Your task to perform on an android device: Open Google Chrome Image 0: 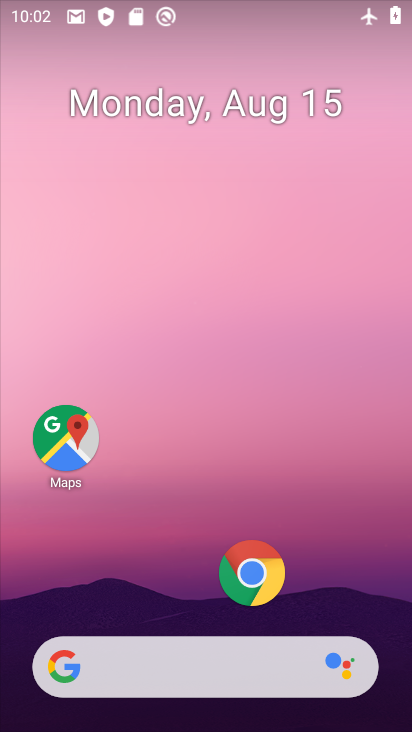
Step 0: drag from (161, 583) to (142, 92)
Your task to perform on an android device: Open Google Chrome Image 1: 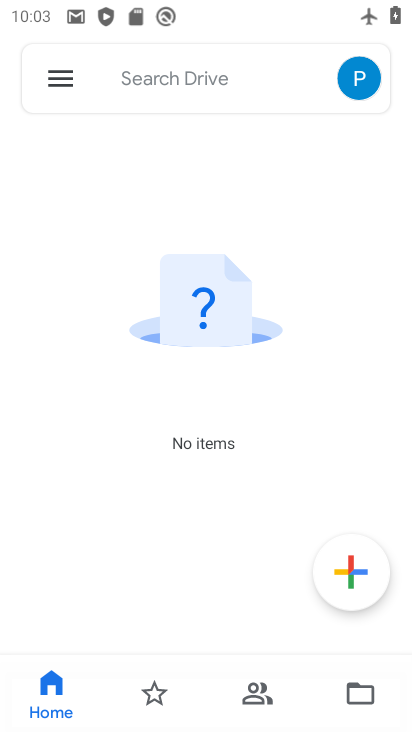
Step 1: press home button
Your task to perform on an android device: Open Google Chrome Image 2: 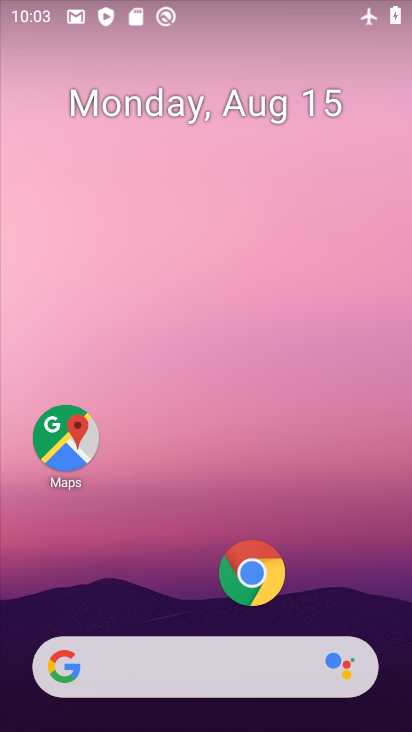
Step 2: click (253, 562)
Your task to perform on an android device: Open Google Chrome Image 3: 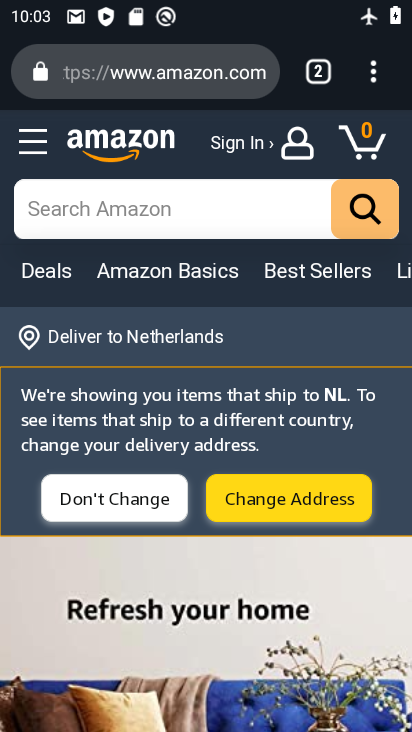
Step 3: task complete